Your task to perform on an android device: Go to wifi settings Image 0: 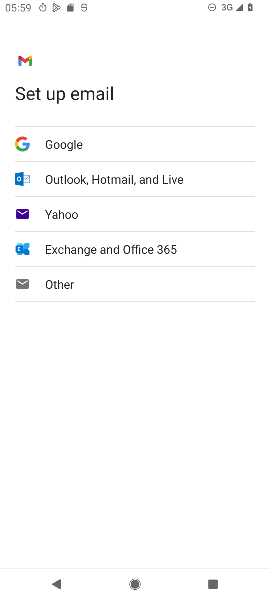
Step 0: press home button
Your task to perform on an android device: Go to wifi settings Image 1: 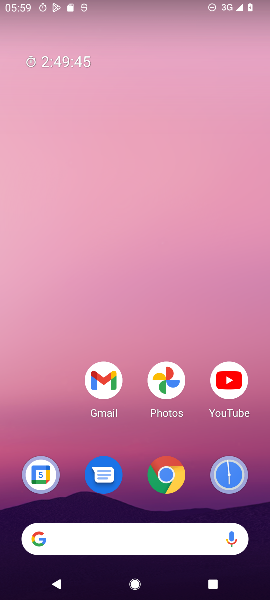
Step 1: drag from (54, 432) to (63, 195)
Your task to perform on an android device: Go to wifi settings Image 2: 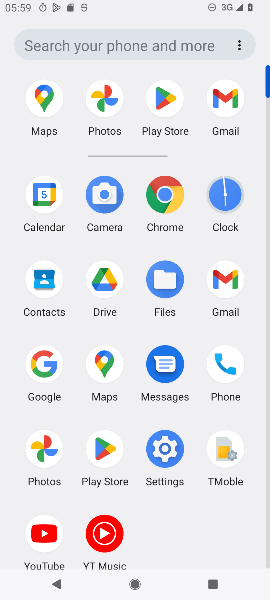
Step 2: click (166, 444)
Your task to perform on an android device: Go to wifi settings Image 3: 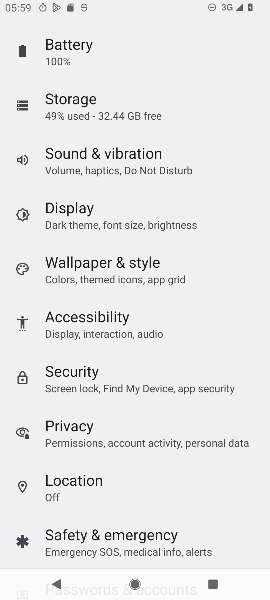
Step 3: drag from (204, 271) to (207, 338)
Your task to perform on an android device: Go to wifi settings Image 4: 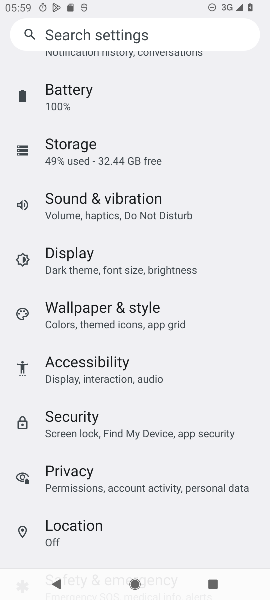
Step 4: drag from (227, 214) to (230, 296)
Your task to perform on an android device: Go to wifi settings Image 5: 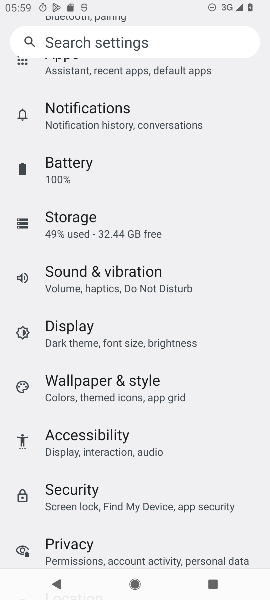
Step 5: drag from (222, 184) to (229, 289)
Your task to perform on an android device: Go to wifi settings Image 6: 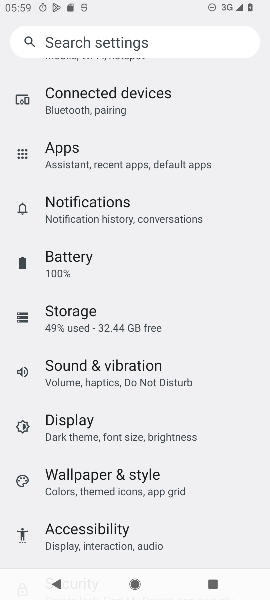
Step 6: drag from (235, 169) to (235, 285)
Your task to perform on an android device: Go to wifi settings Image 7: 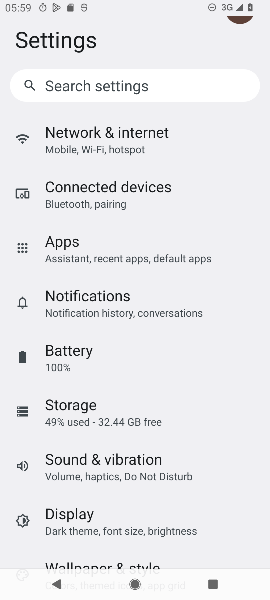
Step 7: drag from (233, 146) to (238, 313)
Your task to perform on an android device: Go to wifi settings Image 8: 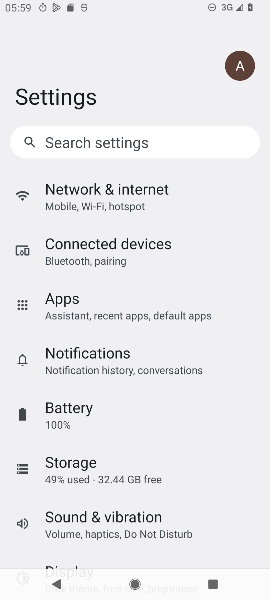
Step 8: click (150, 187)
Your task to perform on an android device: Go to wifi settings Image 9: 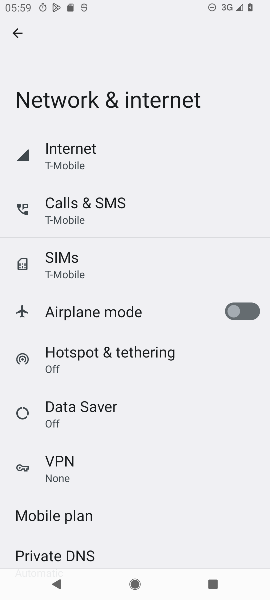
Step 9: drag from (163, 278) to (167, 203)
Your task to perform on an android device: Go to wifi settings Image 10: 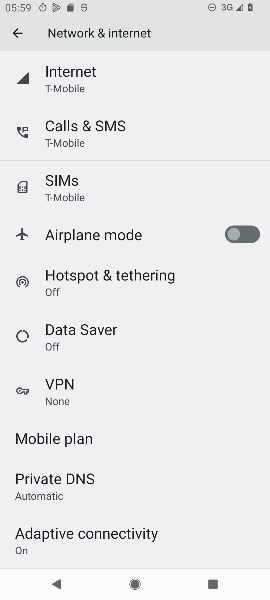
Step 10: drag from (175, 167) to (184, 245)
Your task to perform on an android device: Go to wifi settings Image 11: 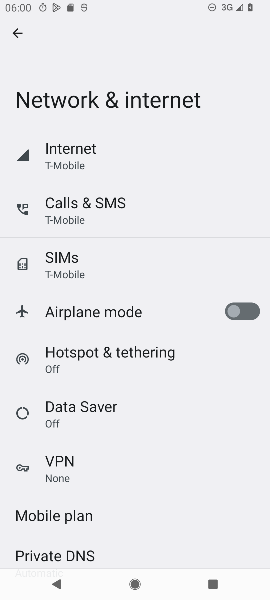
Step 11: click (84, 133)
Your task to perform on an android device: Go to wifi settings Image 12: 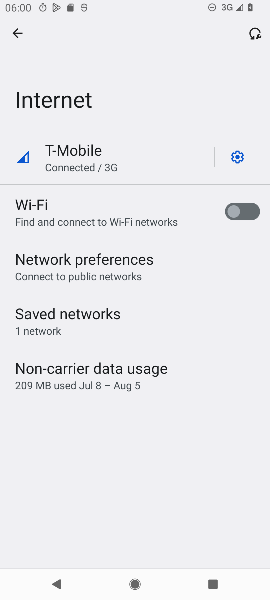
Step 12: task complete